Your task to perform on an android device: Open settings on Google Maps Image 0: 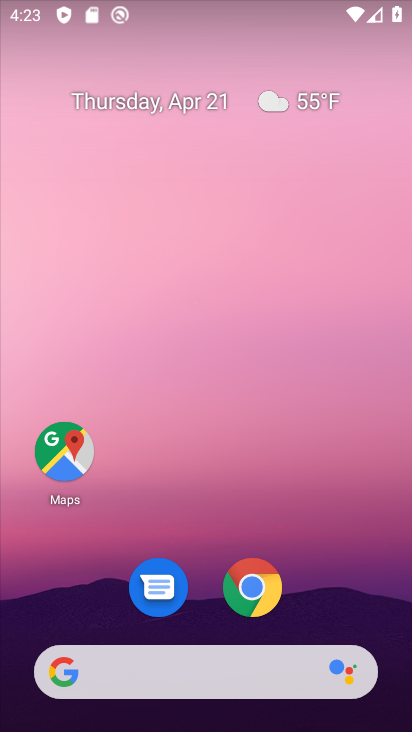
Step 0: drag from (335, 605) to (346, 112)
Your task to perform on an android device: Open settings on Google Maps Image 1: 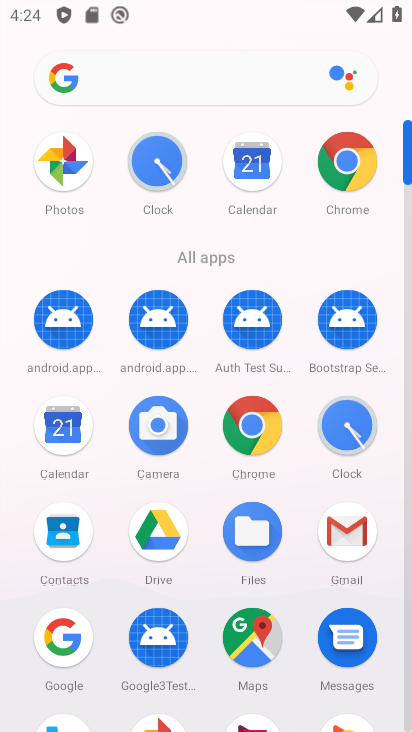
Step 1: drag from (318, 297) to (304, 17)
Your task to perform on an android device: Open settings on Google Maps Image 2: 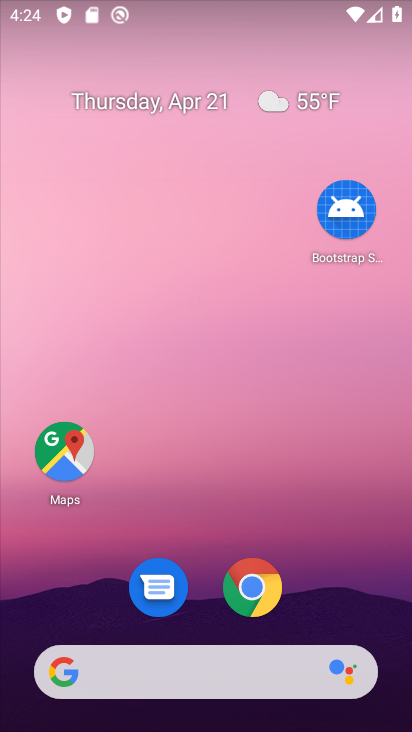
Step 2: drag from (291, 505) to (285, 92)
Your task to perform on an android device: Open settings on Google Maps Image 3: 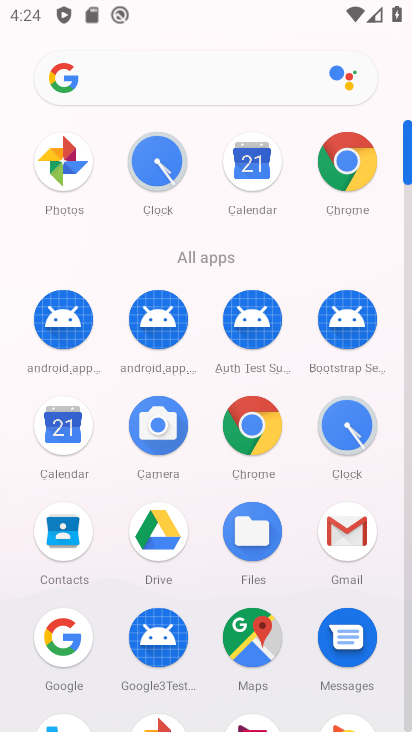
Step 3: drag from (298, 246) to (289, 22)
Your task to perform on an android device: Open settings on Google Maps Image 4: 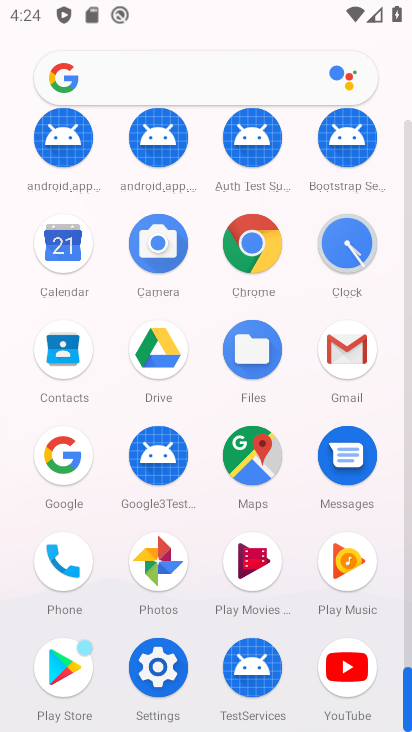
Step 4: click (150, 663)
Your task to perform on an android device: Open settings on Google Maps Image 5: 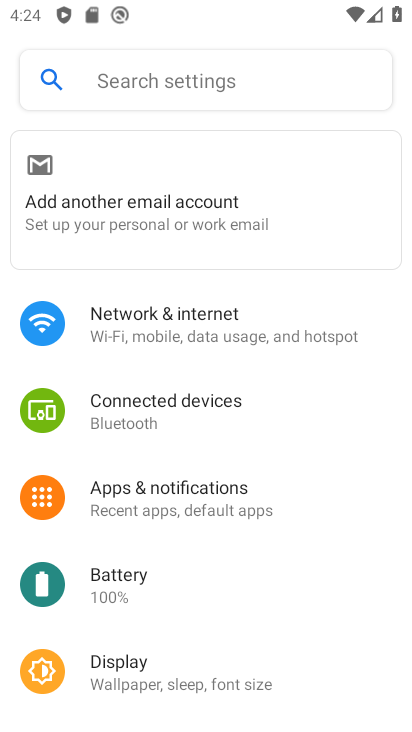
Step 5: press back button
Your task to perform on an android device: Open settings on Google Maps Image 6: 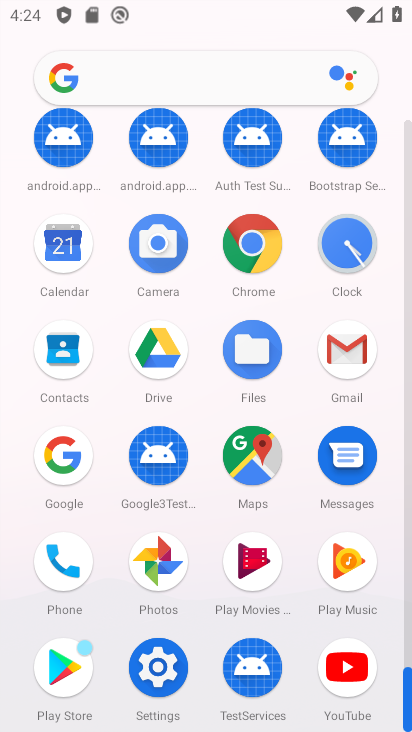
Step 6: click (257, 432)
Your task to perform on an android device: Open settings on Google Maps Image 7: 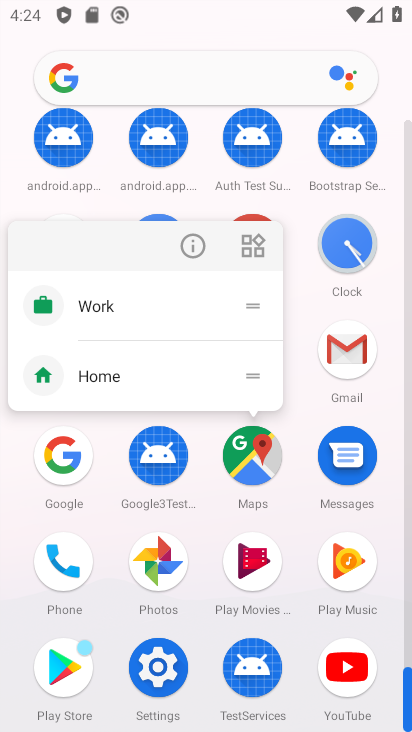
Step 7: click (257, 449)
Your task to perform on an android device: Open settings on Google Maps Image 8: 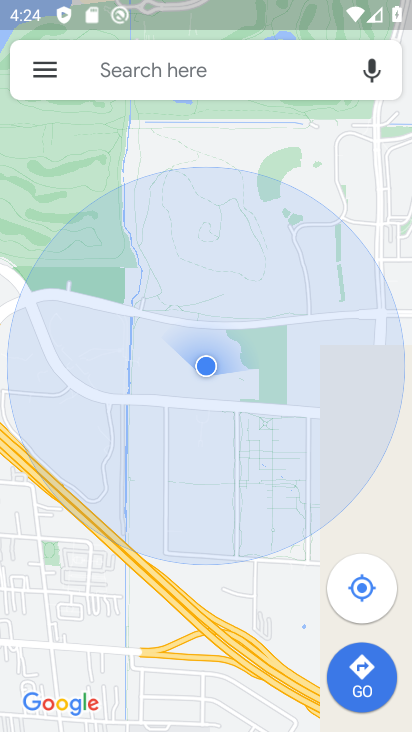
Step 8: click (50, 70)
Your task to perform on an android device: Open settings on Google Maps Image 9: 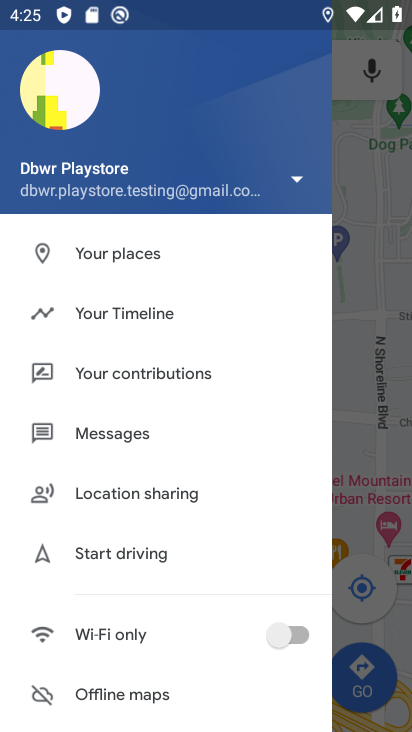
Step 9: drag from (228, 516) to (243, 317)
Your task to perform on an android device: Open settings on Google Maps Image 10: 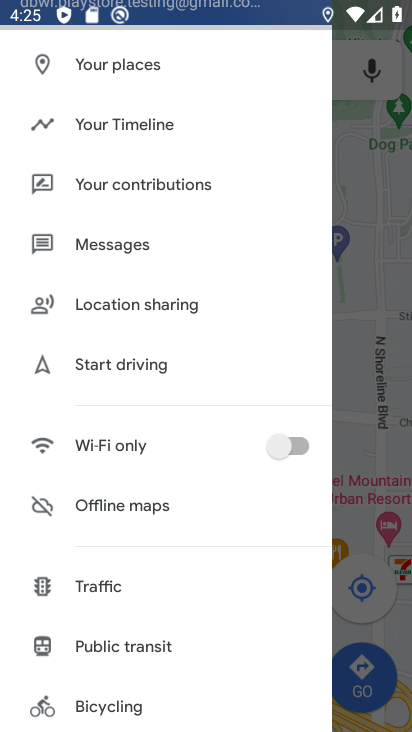
Step 10: drag from (243, 317) to (251, 150)
Your task to perform on an android device: Open settings on Google Maps Image 11: 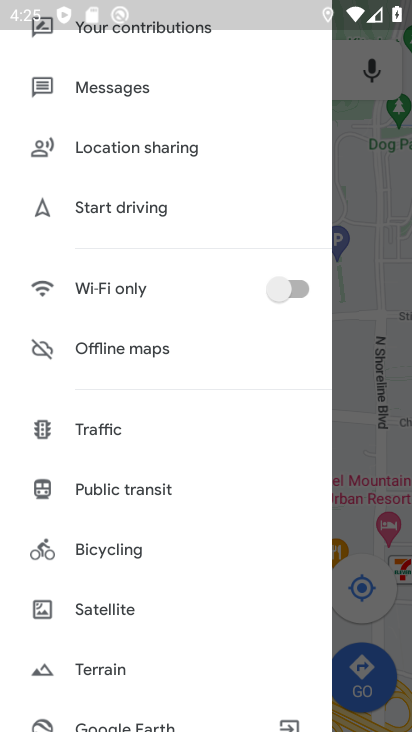
Step 11: drag from (229, 610) to (246, 338)
Your task to perform on an android device: Open settings on Google Maps Image 12: 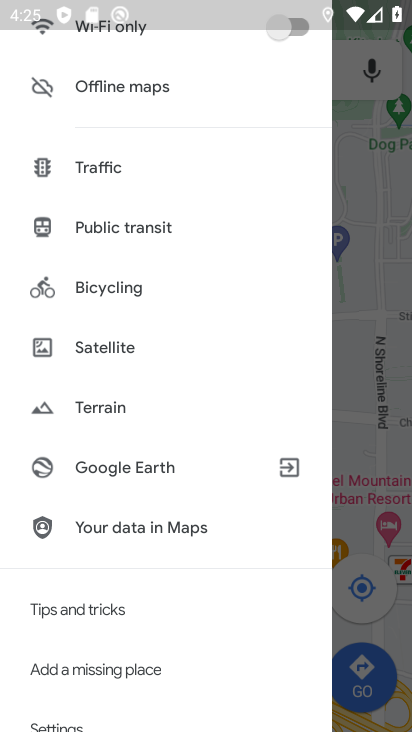
Step 12: drag from (235, 659) to (240, 315)
Your task to perform on an android device: Open settings on Google Maps Image 13: 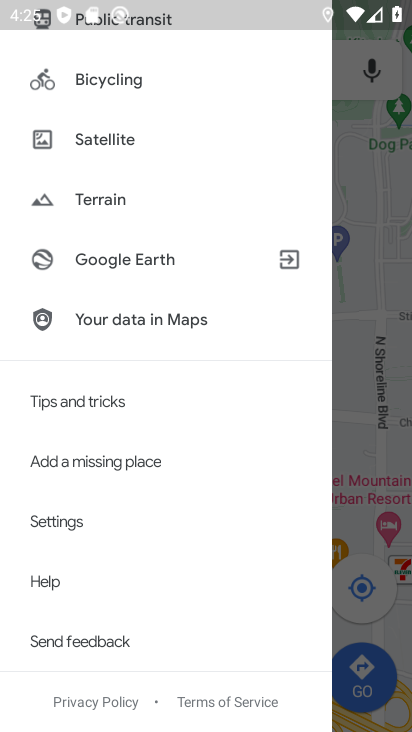
Step 13: click (75, 522)
Your task to perform on an android device: Open settings on Google Maps Image 14: 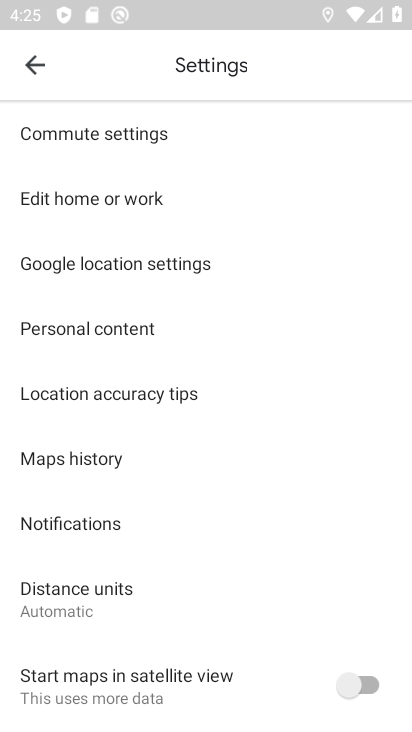
Step 14: task complete